Your task to perform on an android device: turn on airplane mode Image 0: 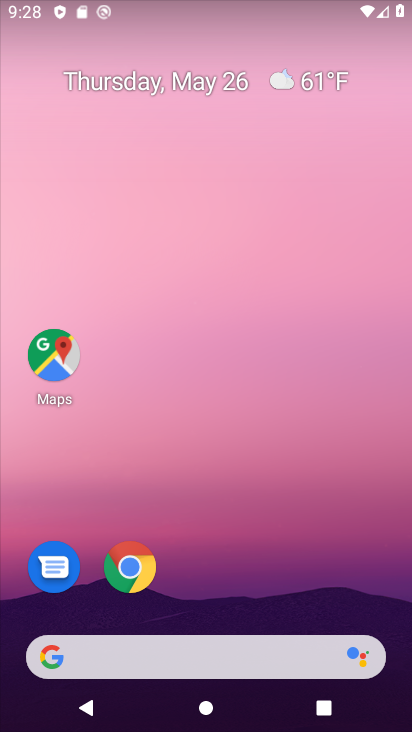
Step 0: drag from (388, 6) to (371, 493)
Your task to perform on an android device: turn on airplane mode Image 1: 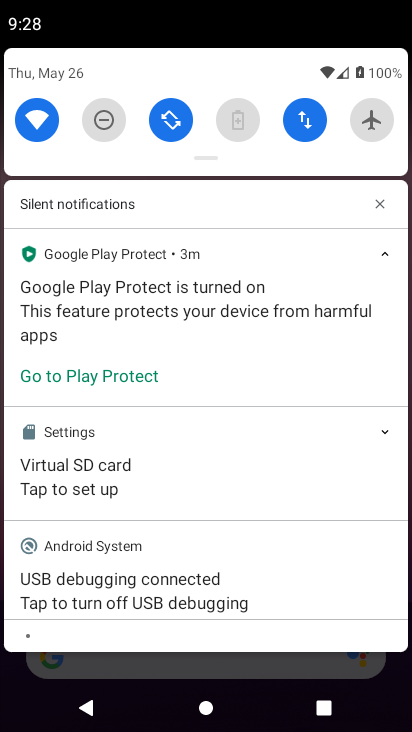
Step 1: click (374, 102)
Your task to perform on an android device: turn on airplane mode Image 2: 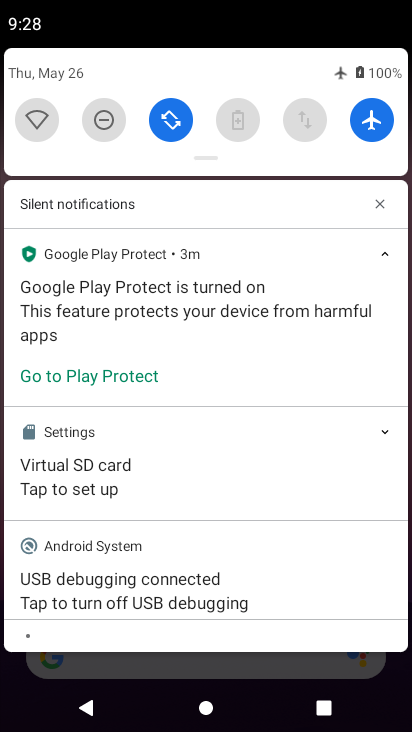
Step 2: task complete